Your task to perform on an android device: Open calendar and show me the third week of next month Image 0: 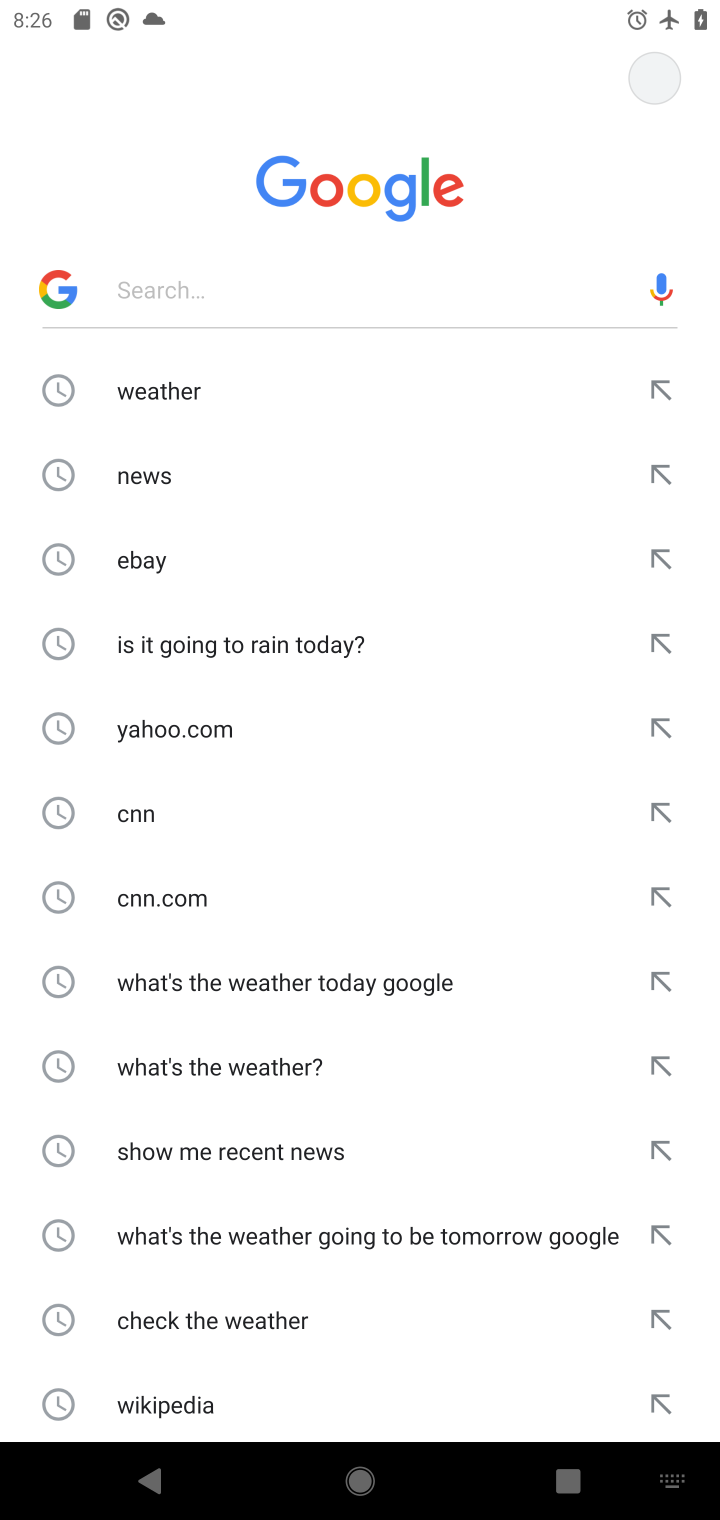
Step 0: press home button
Your task to perform on an android device: Open calendar and show me the third week of next month Image 1: 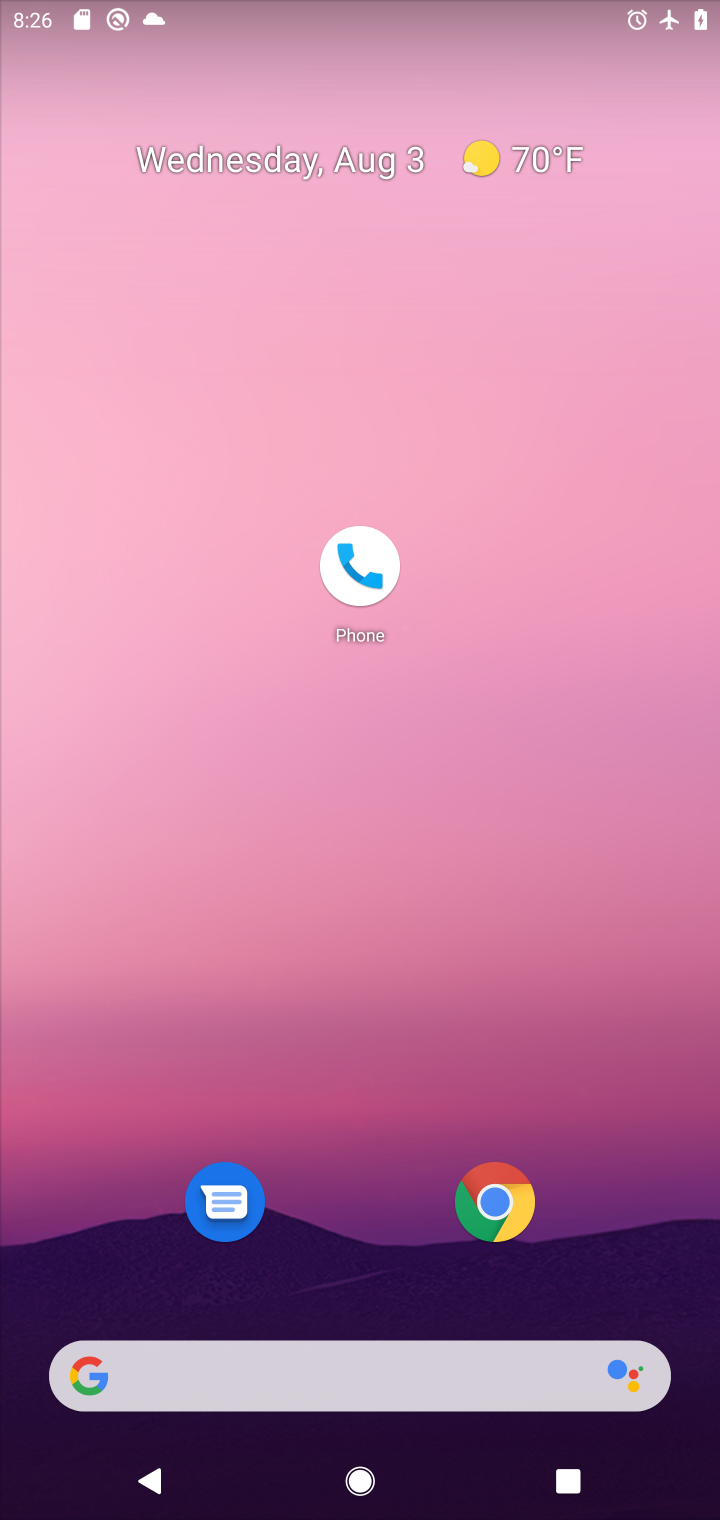
Step 1: drag from (307, 1383) to (231, 401)
Your task to perform on an android device: Open calendar and show me the third week of next month Image 2: 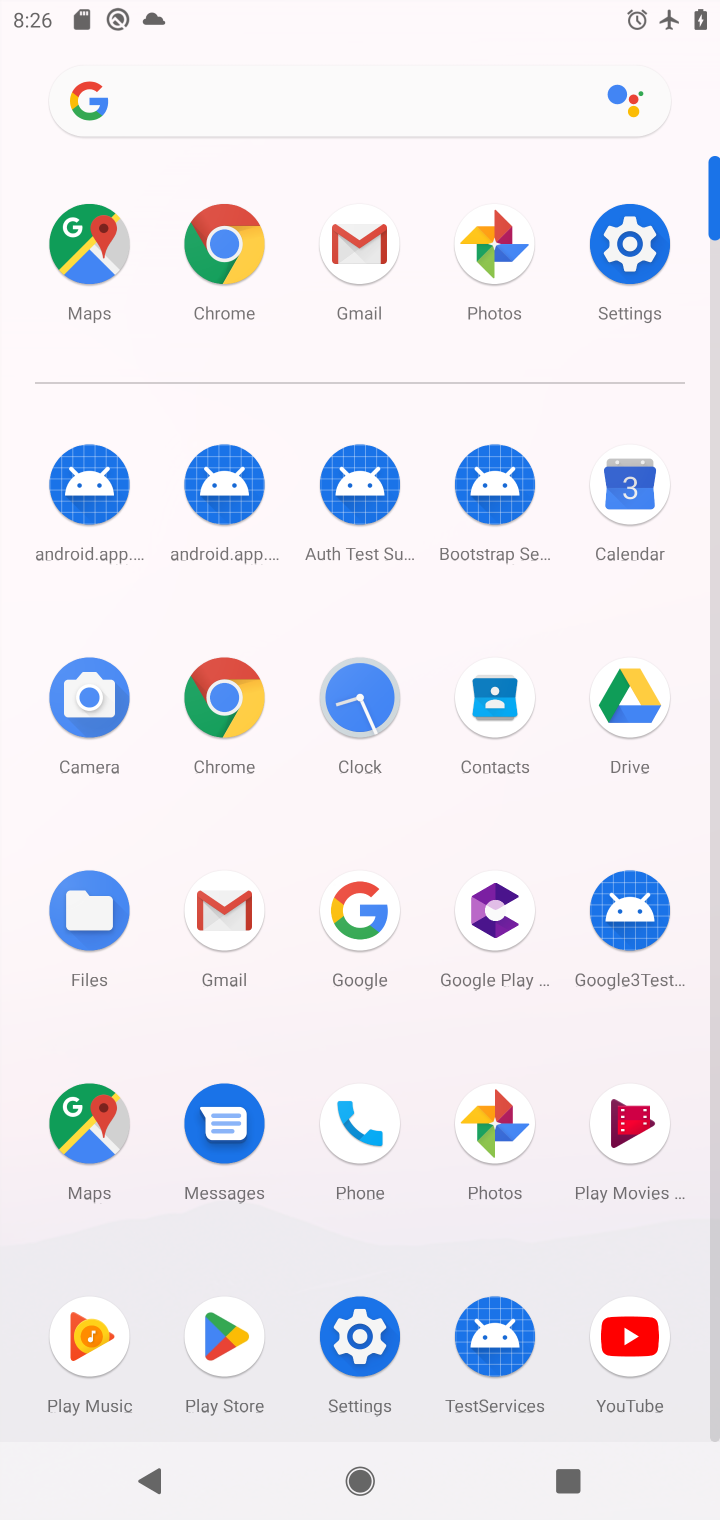
Step 2: click (632, 489)
Your task to perform on an android device: Open calendar and show me the third week of next month Image 3: 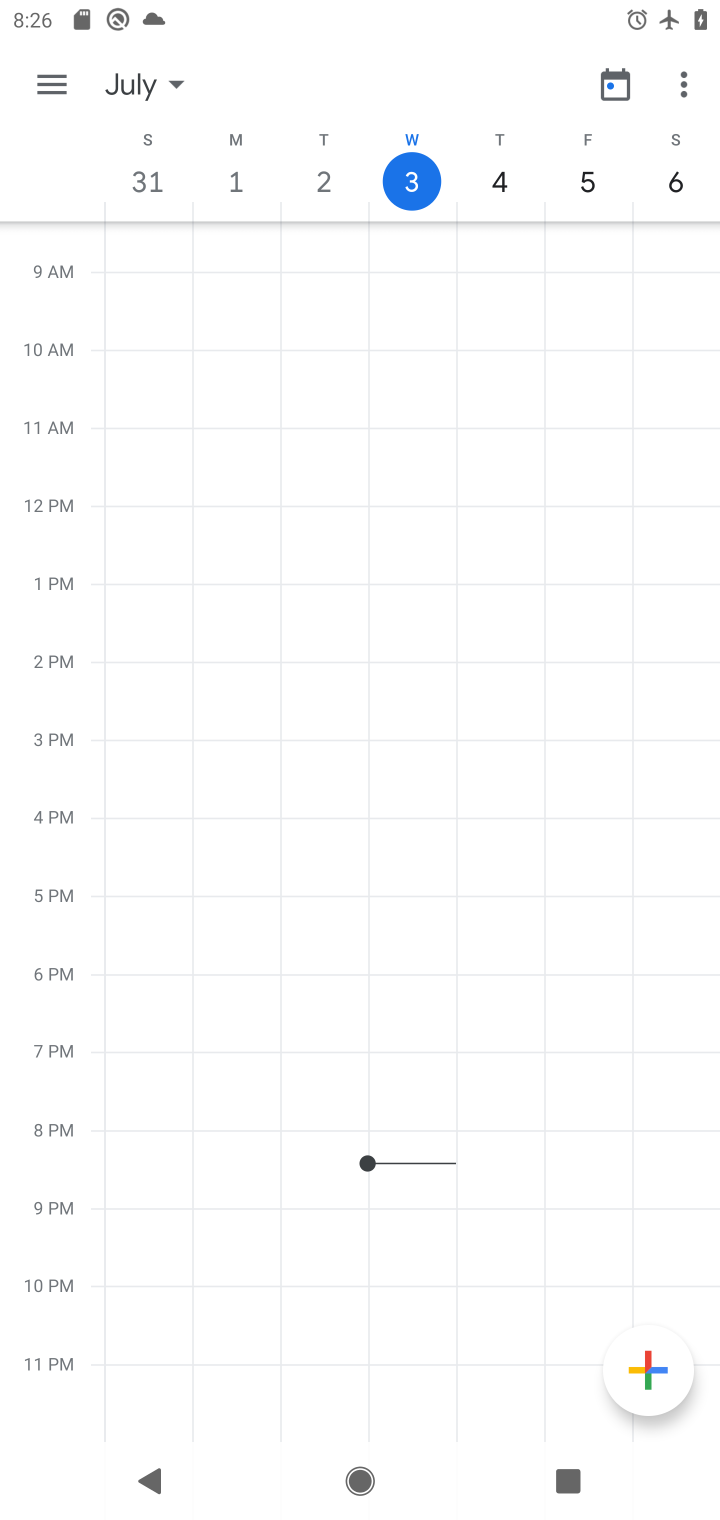
Step 3: click (609, 93)
Your task to perform on an android device: Open calendar and show me the third week of next month Image 4: 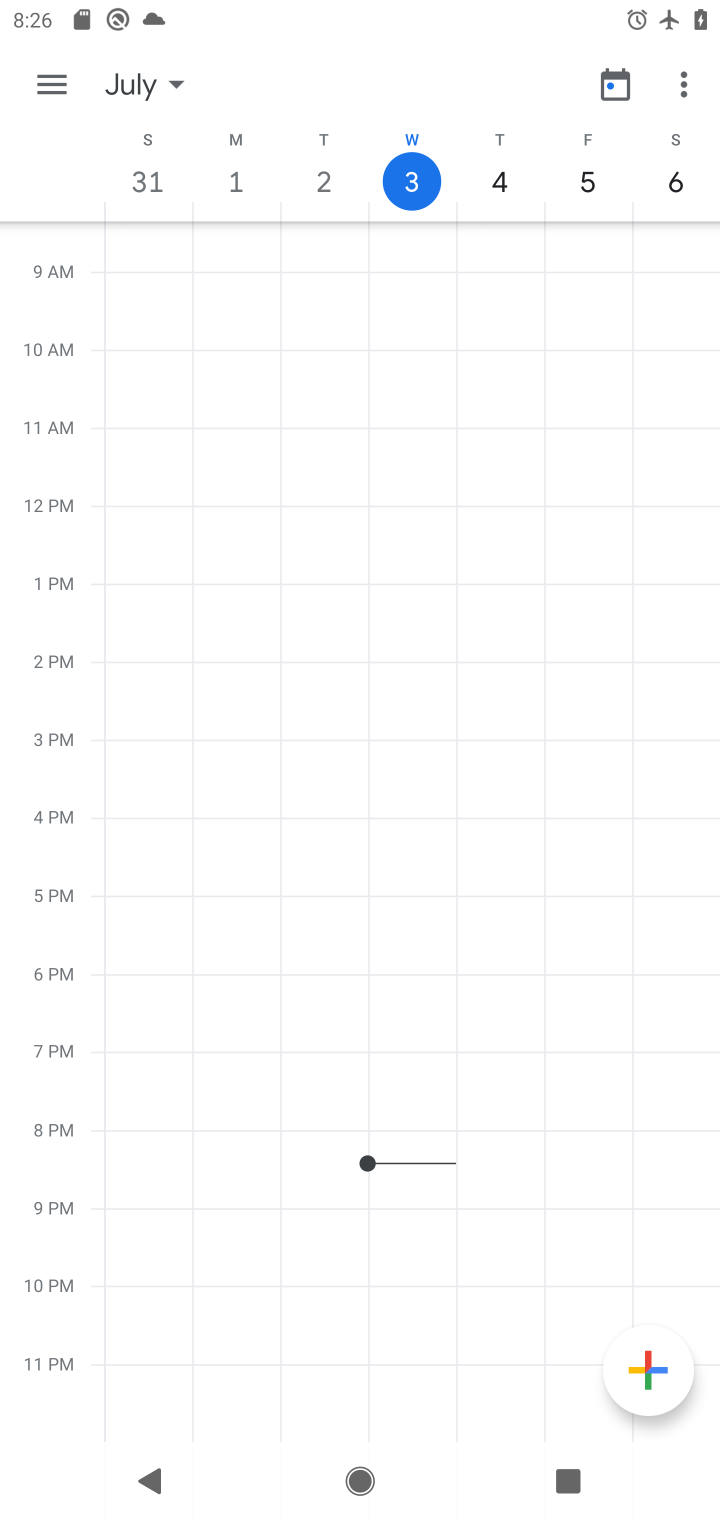
Step 4: click (616, 88)
Your task to perform on an android device: Open calendar and show me the third week of next month Image 5: 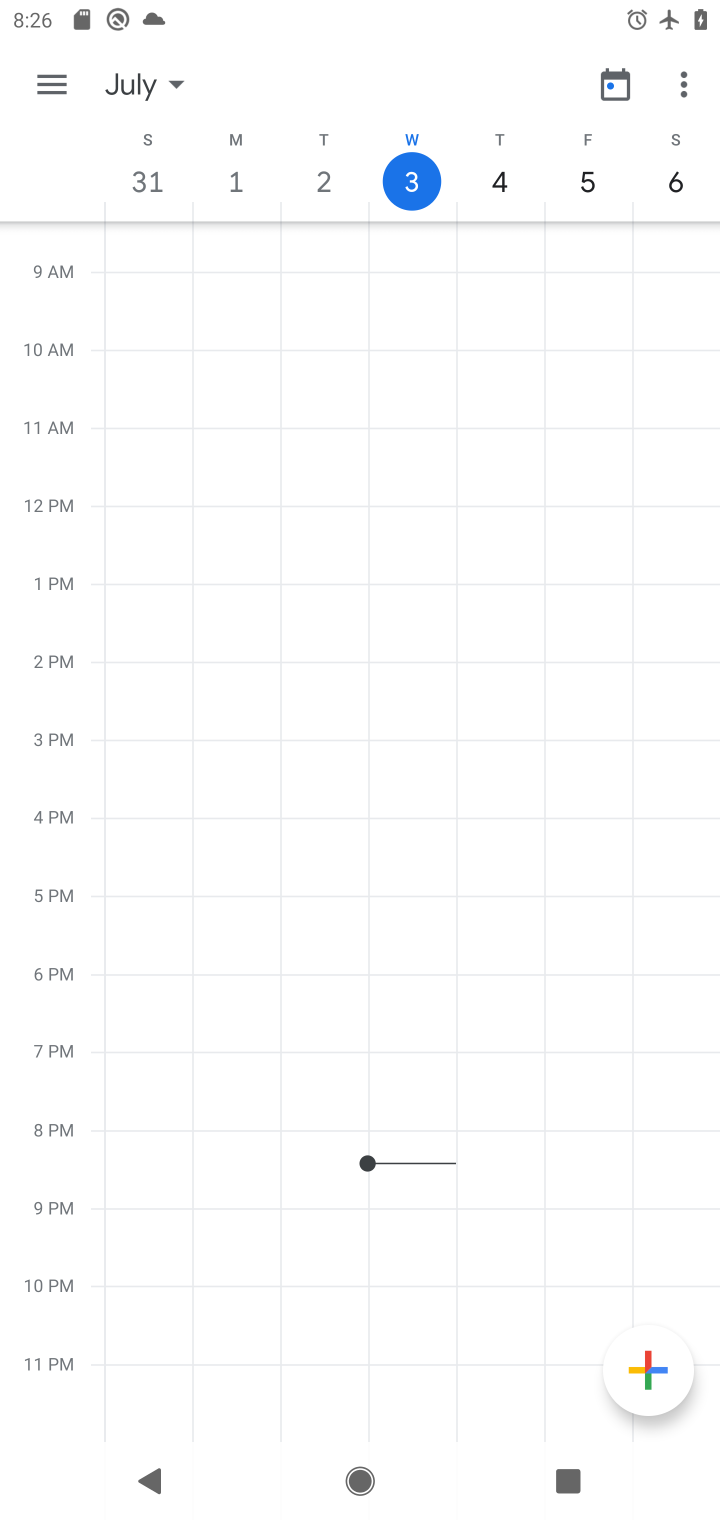
Step 5: click (177, 83)
Your task to perform on an android device: Open calendar and show me the third week of next month Image 6: 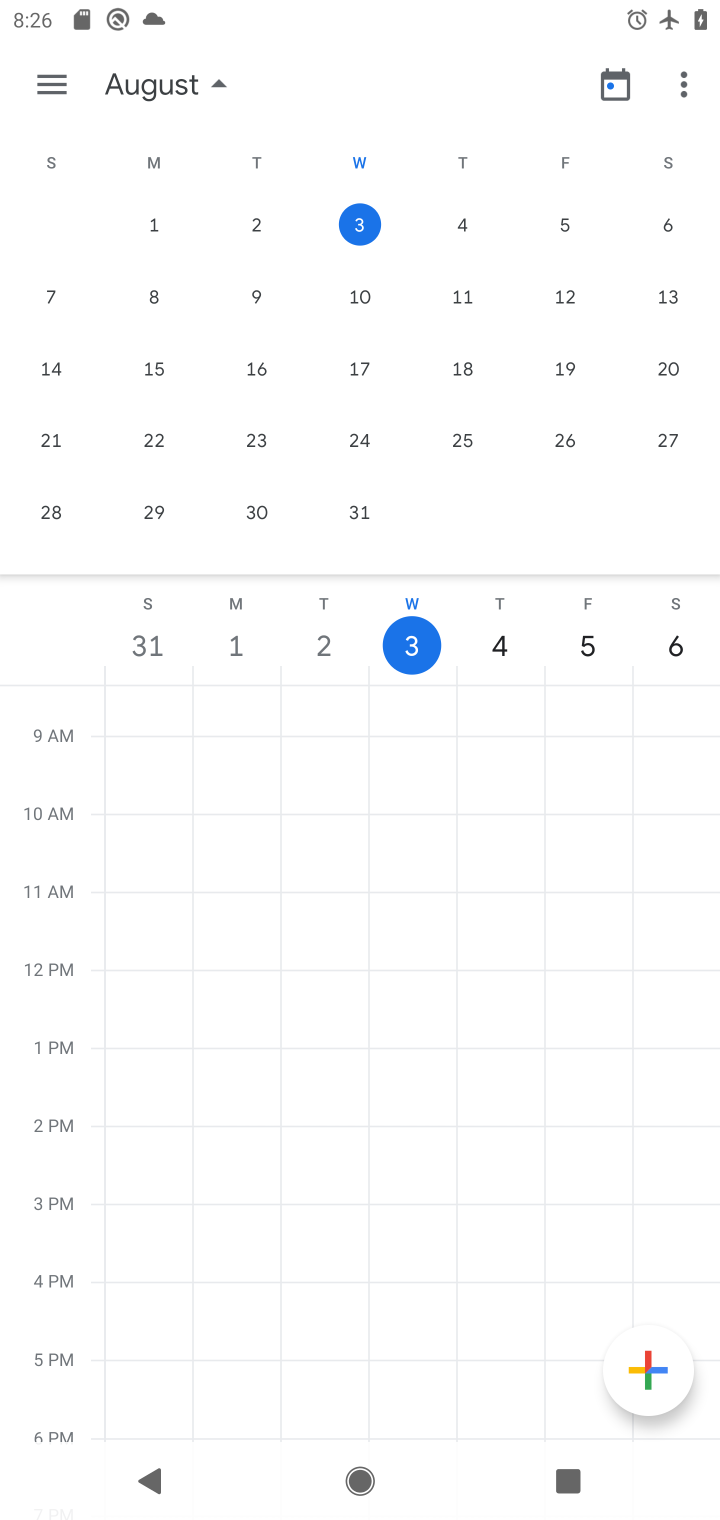
Step 6: drag from (651, 396) to (3, 484)
Your task to perform on an android device: Open calendar and show me the third week of next month Image 7: 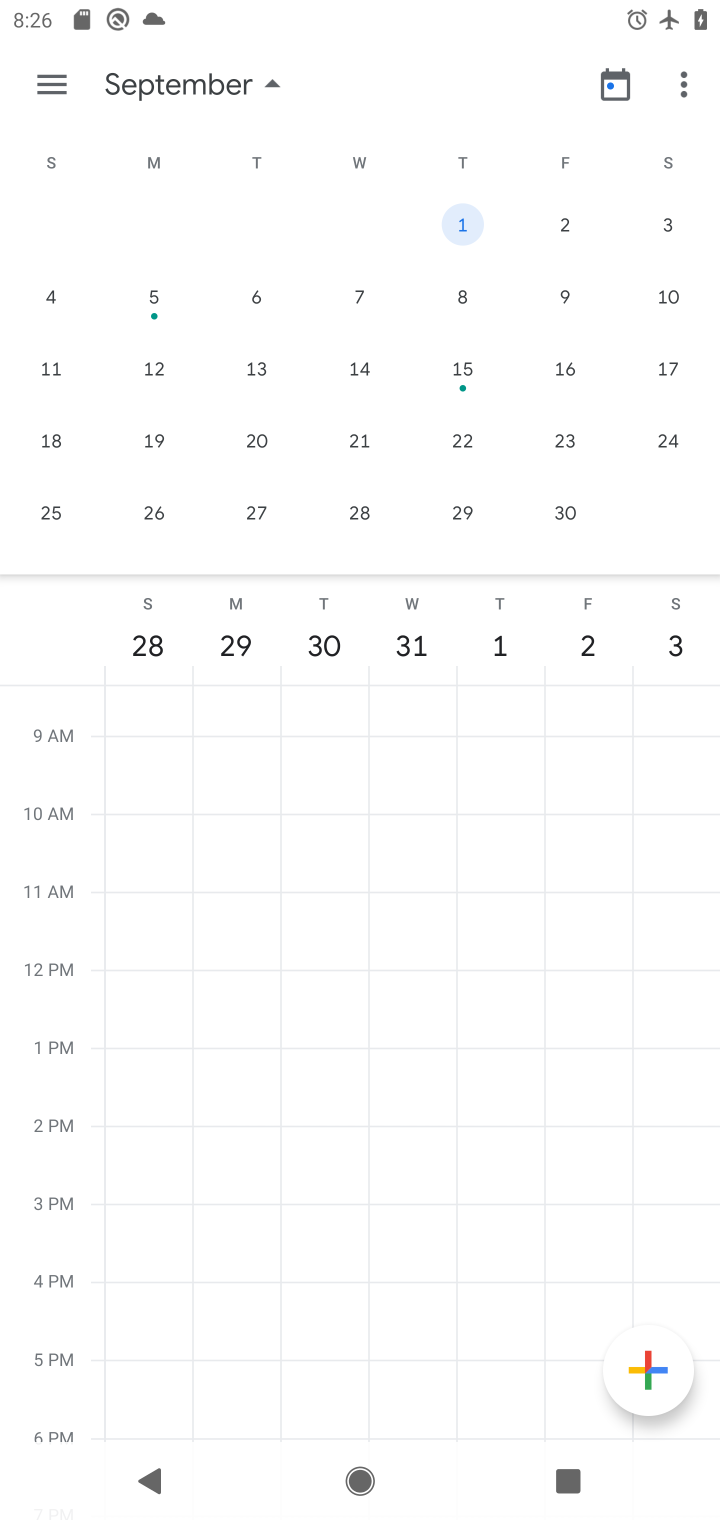
Step 7: click (155, 455)
Your task to perform on an android device: Open calendar and show me the third week of next month Image 8: 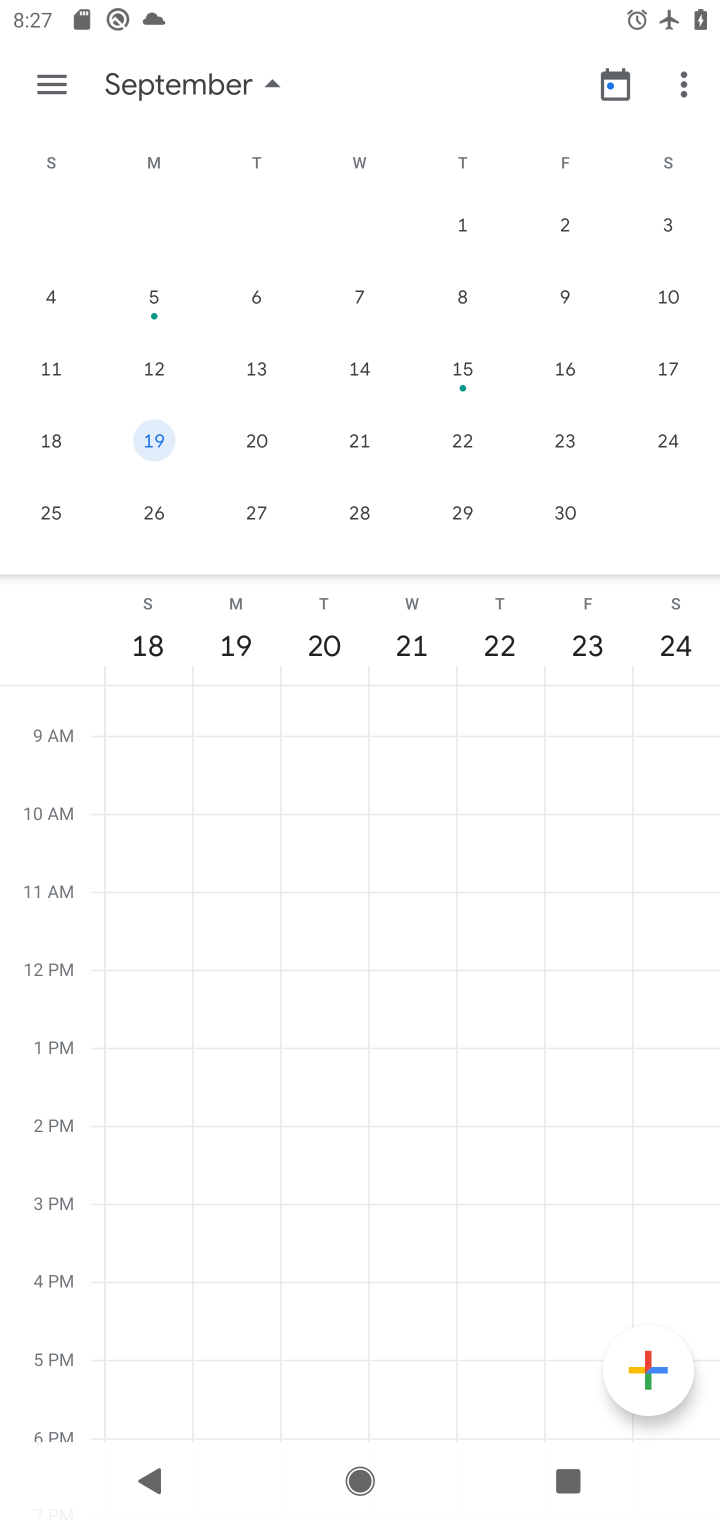
Step 8: click (58, 72)
Your task to perform on an android device: Open calendar and show me the third week of next month Image 9: 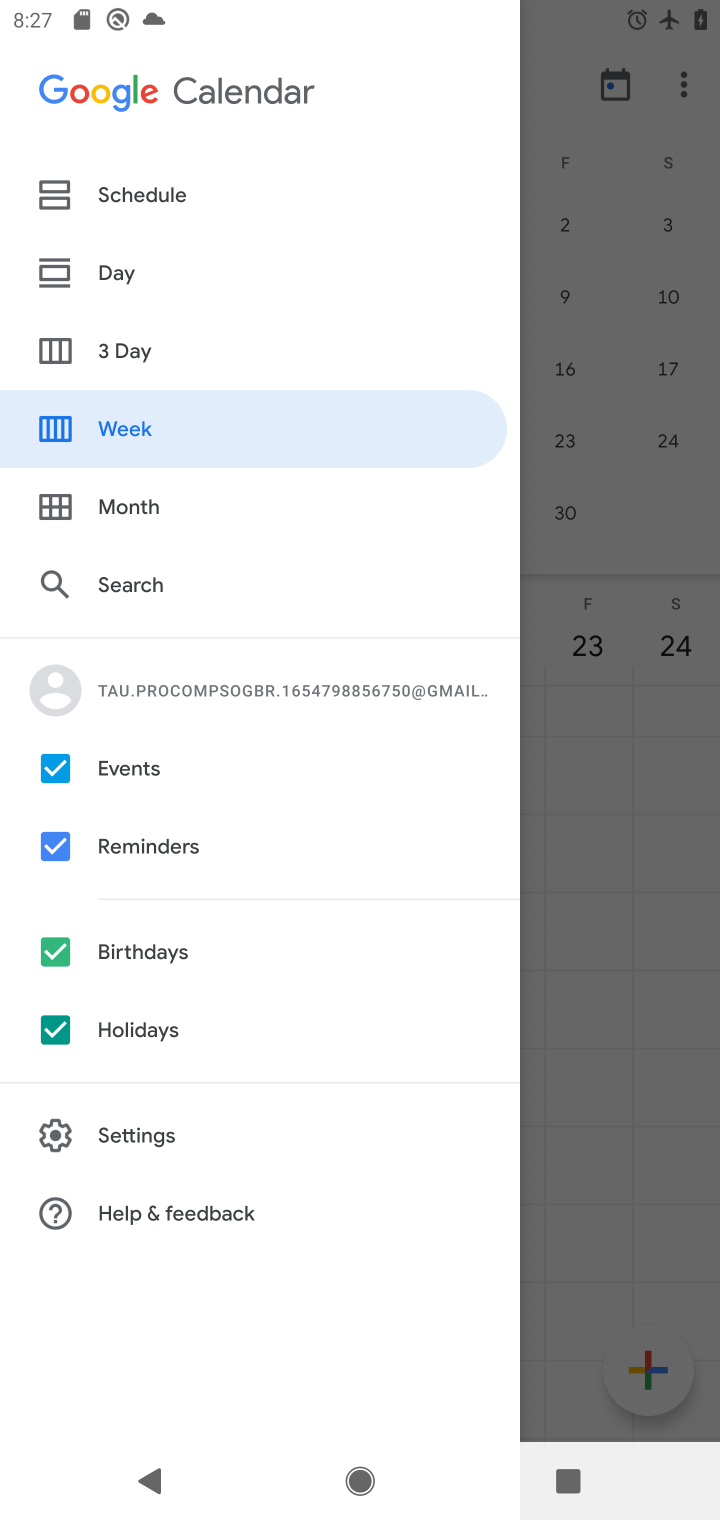
Step 9: click (169, 432)
Your task to perform on an android device: Open calendar and show me the third week of next month Image 10: 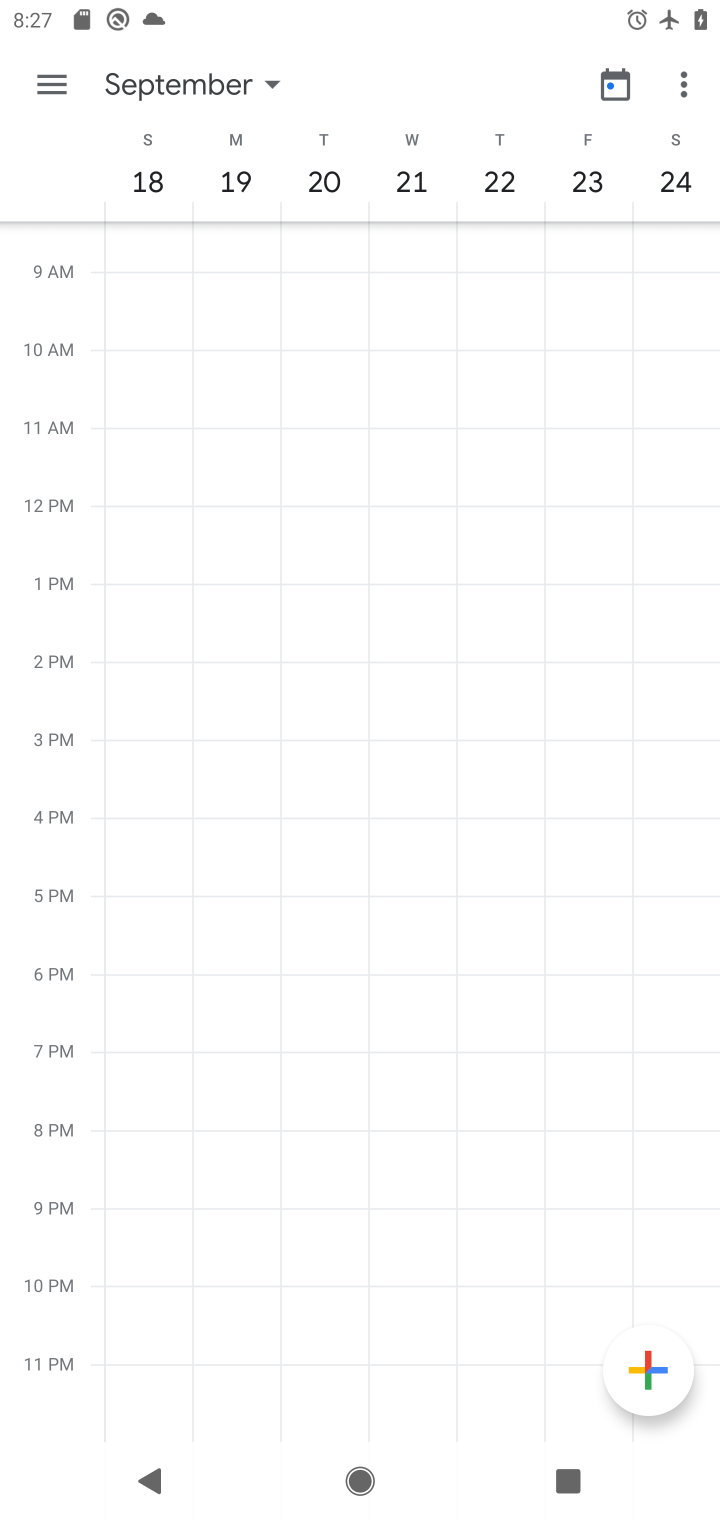
Step 10: task complete